Your task to perform on an android device: Open CNN.com Image 0: 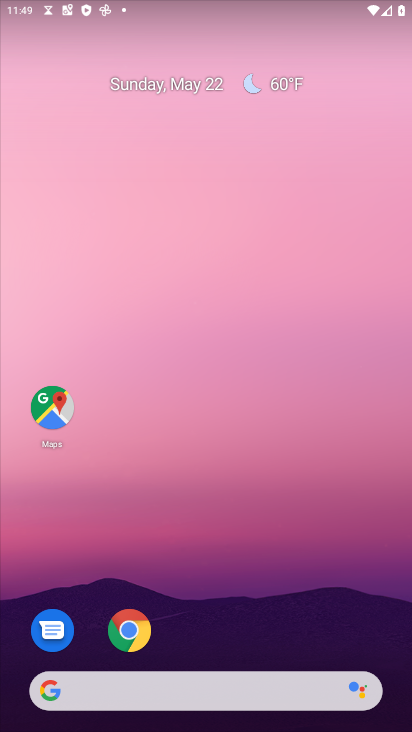
Step 0: click (128, 627)
Your task to perform on an android device: Open CNN.com Image 1: 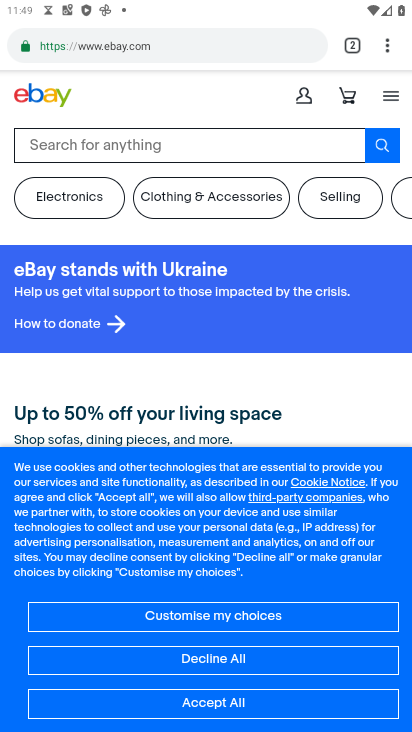
Step 1: click (159, 44)
Your task to perform on an android device: Open CNN.com Image 2: 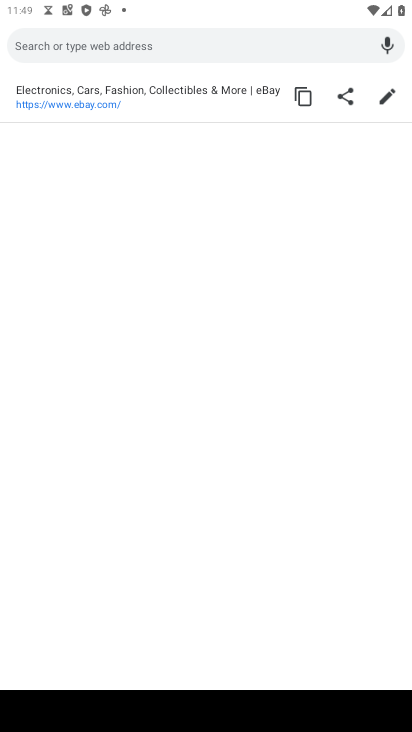
Step 2: type "CNN.com"
Your task to perform on an android device: Open CNN.com Image 3: 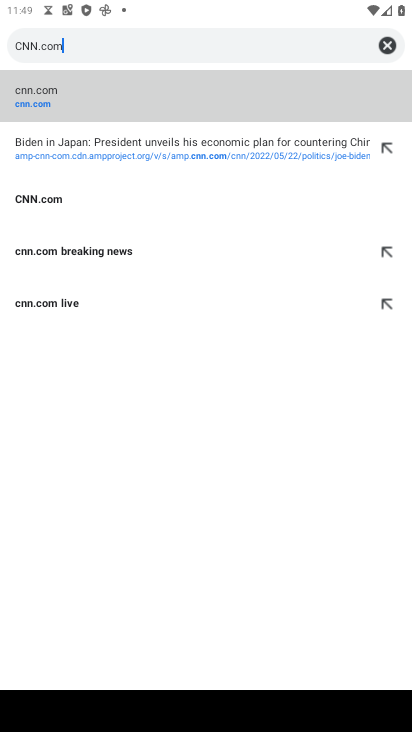
Step 3: click (34, 193)
Your task to perform on an android device: Open CNN.com Image 4: 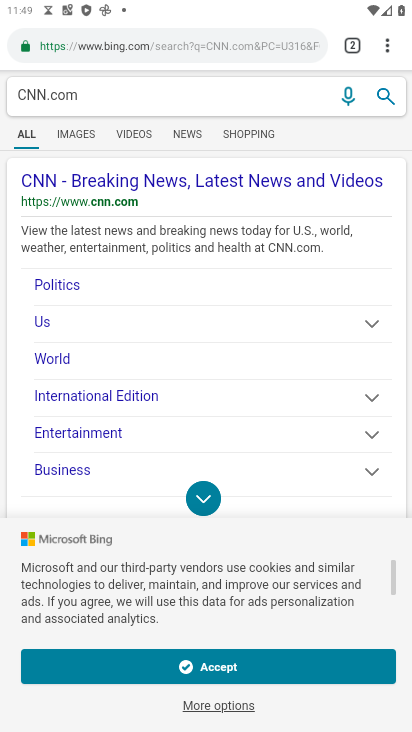
Step 4: click (81, 211)
Your task to perform on an android device: Open CNN.com Image 5: 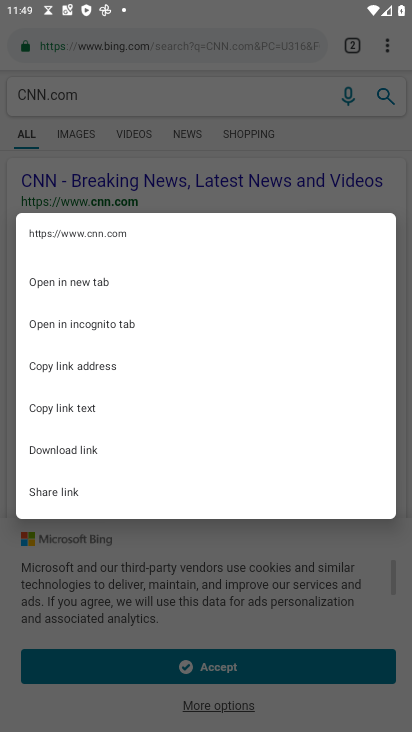
Step 5: click (181, 178)
Your task to perform on an android device: Open CNN.com Image 6: 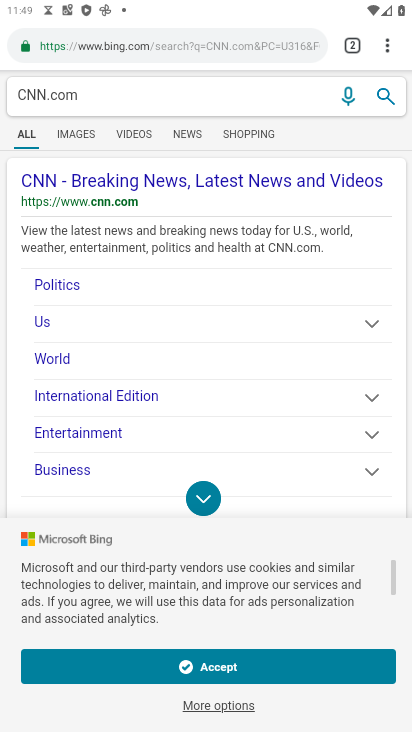
Step 6: click (153, 202)
Your task to perform on an android device: Open CNN.com Image 7: 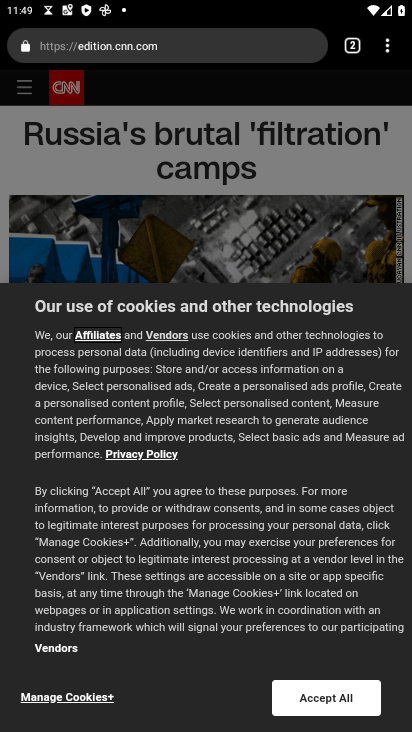
Step 7: task complete